Your task to perform on an android device: open chrome privacy settings Image 0: 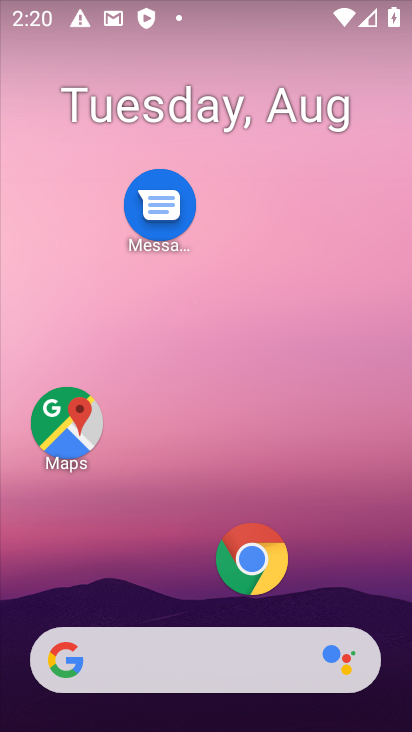
Step 0: click (254, 560)
Your task to perform on an android device: open chrome privacy settings Image 1: 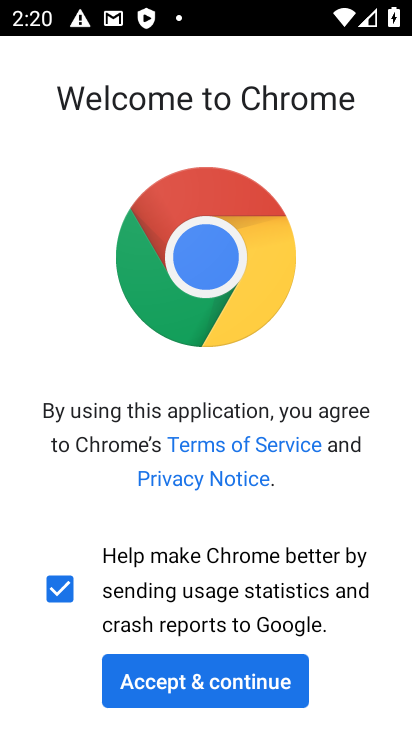
Step 1: click (209, 675)
Your task to perform on an android device: open chrome privacy settings Image 2: 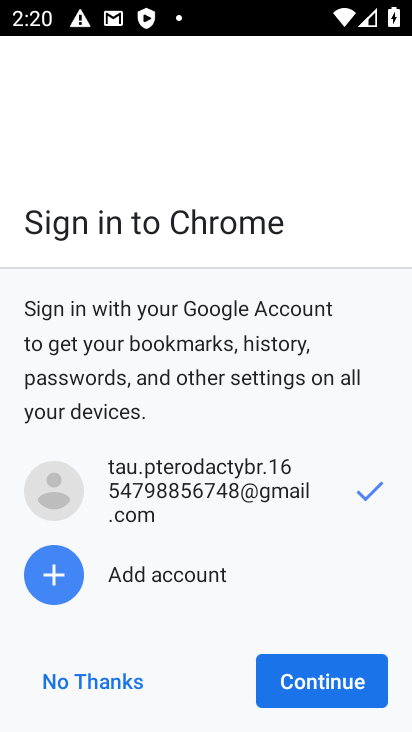
Step 2: click (328, 681)
Your task to perform on an android device: open chrome privacy settings Image 3: 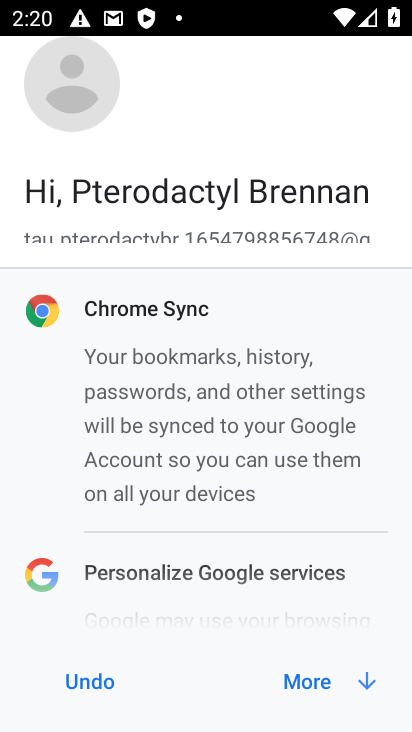
Step 3: click (361, 682)
Your task to perform on an android device: open chrome privacy settings Image 4: 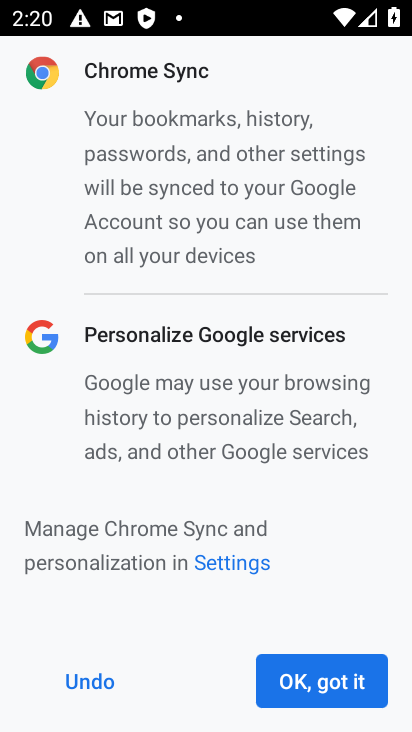
Step 4: click (326, 678)
Your task to perform on an android device: open chrome privacy settings Image 5: 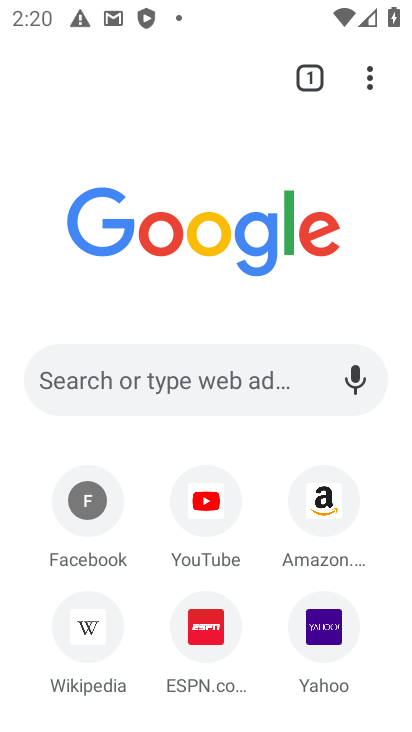
Step 5: click (368, 77)
Your task to perform on an android device: open chrome privacy settings Image 6: 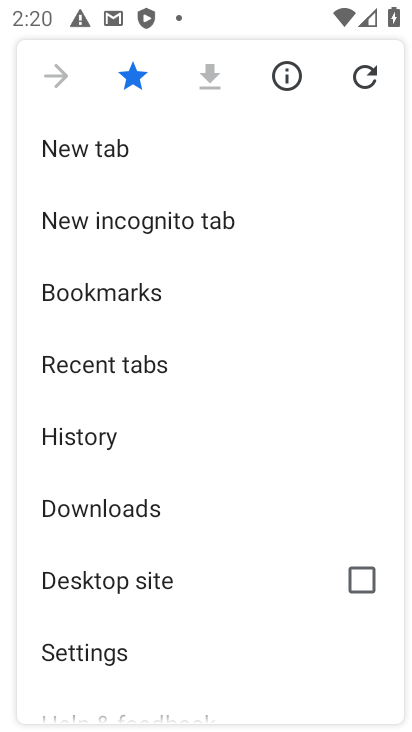
Step 6: click (112, 655)
Your task to perform on an android device: open chrome privacy settings Image 7: 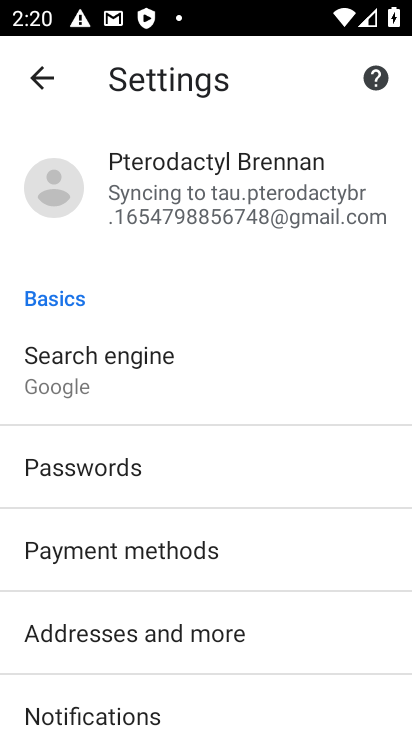
Step 7: drag from (237, 672) to (216, 364)
Your task to perform on an android device: open chrome privacy settings Image 8: 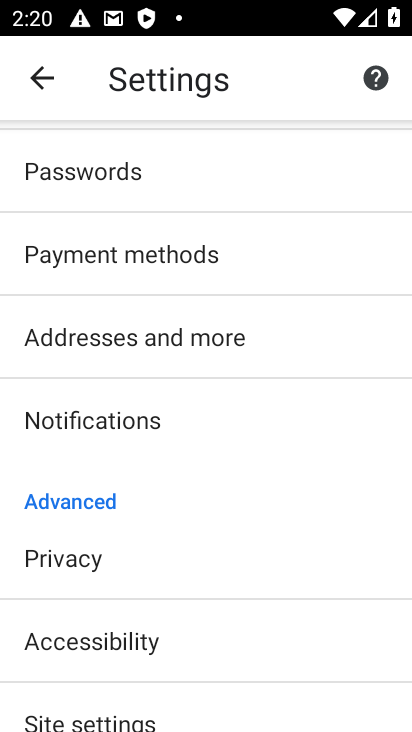
Step 8: click (63, 555)
Your task to perform on an android device: open chrome privacy settings Image 9: 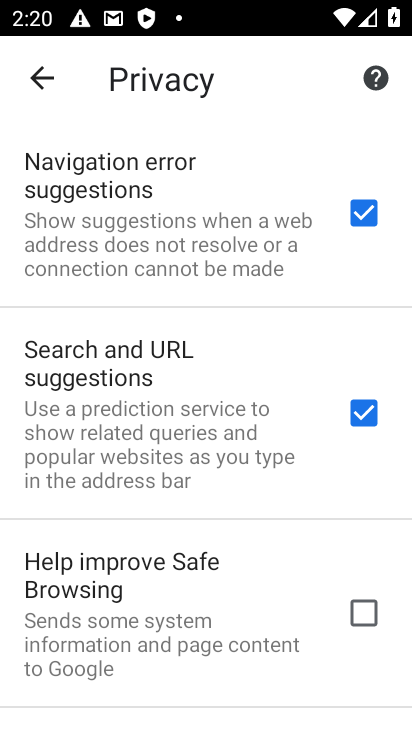
Step 9: task complete